Your task to perform on an android device: Set the phone to "Do not disturb". Image 0: 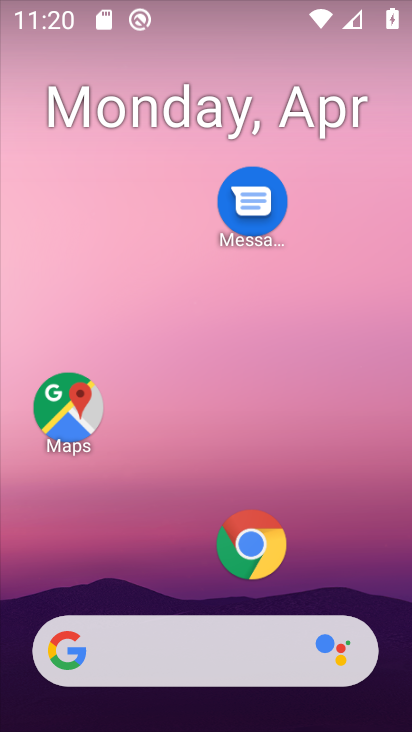
Step 0: drag from (181, 578) to (208, 121)
Your task to perform on an android device: Set the phone to "Do not disturb". Image 1: 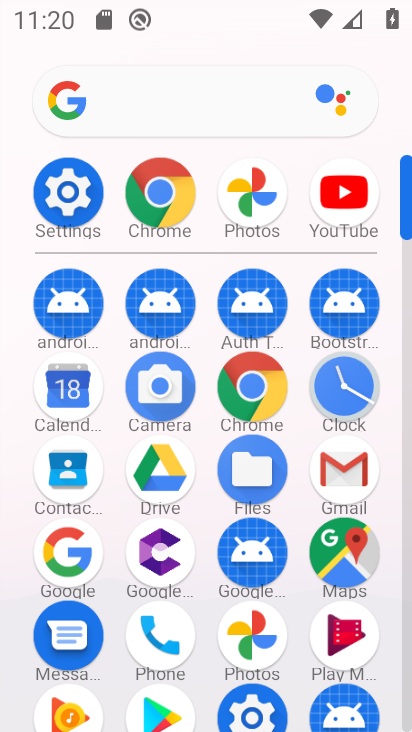
Step 1: drag from (196, 9) to (216, 577)
Your task to perform on an android device: Set the phone to "Do not disturb". Image 2: 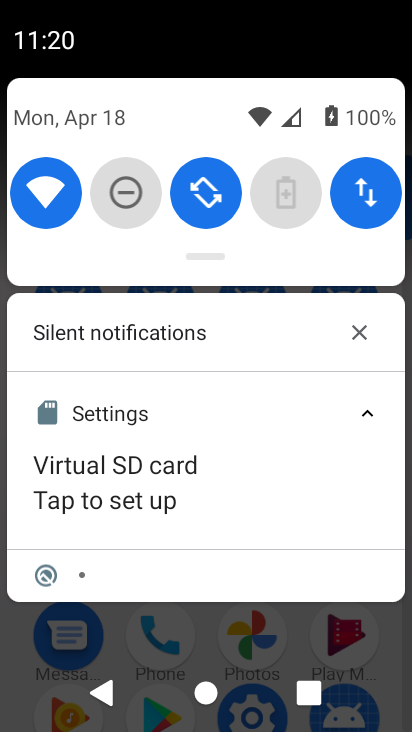
Step 2: click (125, 187)
Your task to perform on an android device: Set the phone to "Do not disturb". Image 3: 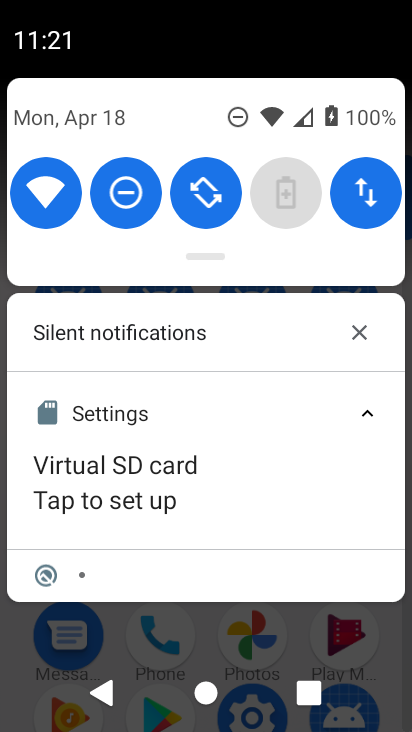
Step 3: task complete